Your task to perform on an android device: change text size in settings app Image 0: 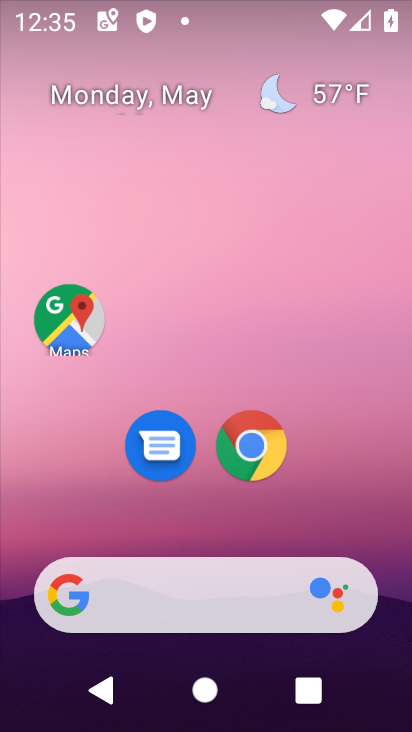
Step 0: drag from (348, 469) to (358, 96)
Your task to perform on an android device: change text size in settings app Image 1: 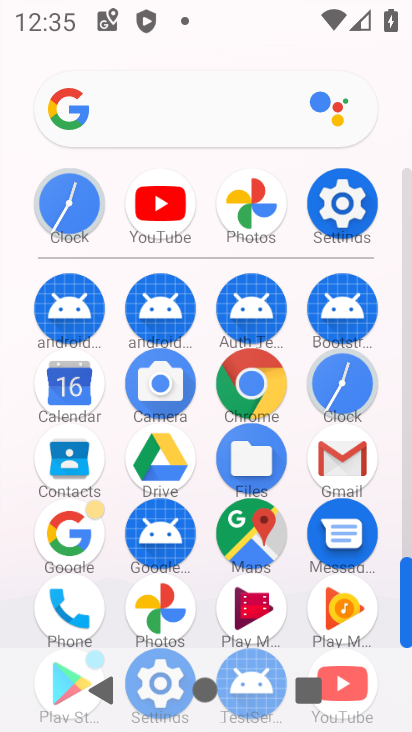
Step 1: click (337, 221)
Your task to perform on an android device: change text size in settings app Image 2: 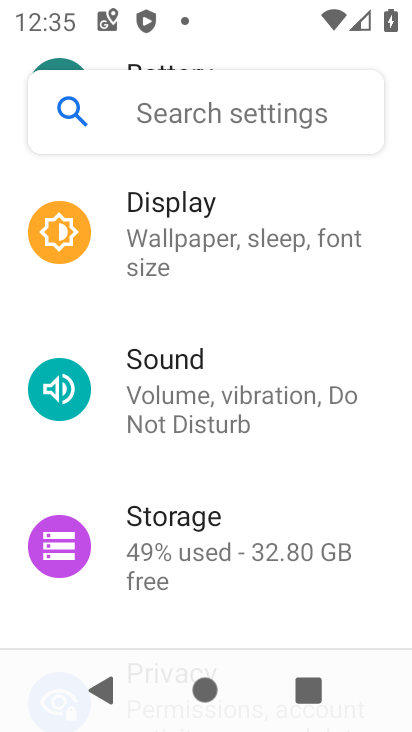
Step 2: drag from (267, 303) to (310, 567)
Your task to perform on an android device: change text size in settings app Image 3: 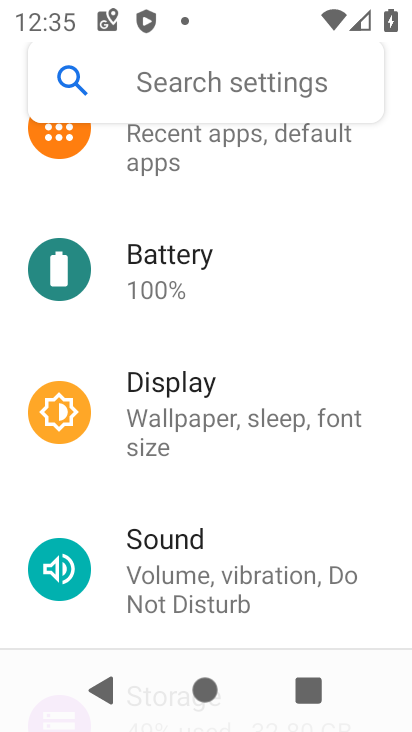
Step 3: click (246, 416)
Your task to perform on an android device: change text size in settings app Image 4: 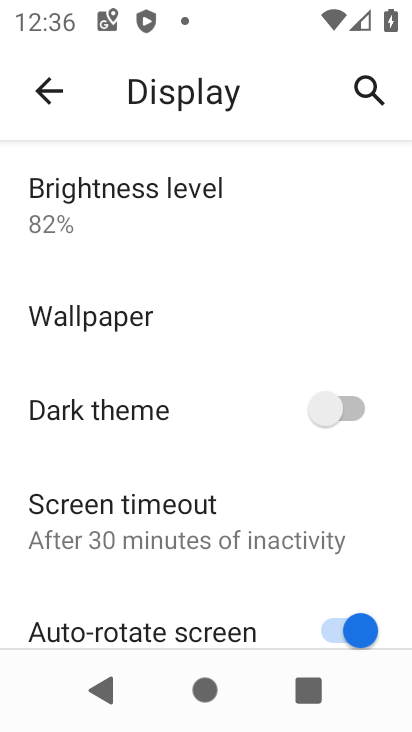
Step 4: drag from (204, 436) to (226, 391)
Your task to perform on an android device: change text size in settings app Image 5: 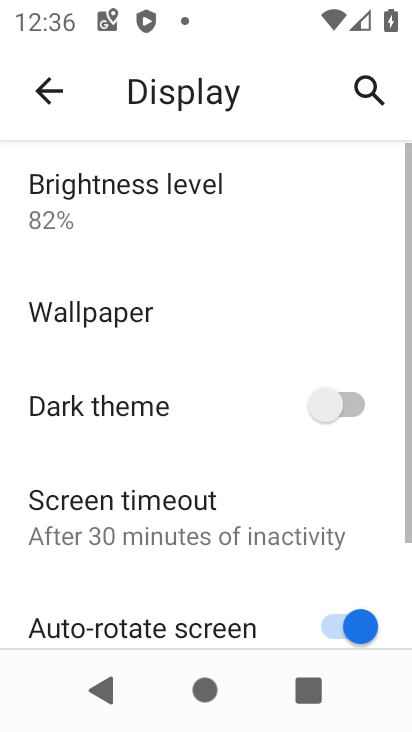
Step 5: click (389, 97)
Your task to perform on an android device: change text size in settings app Image 6: 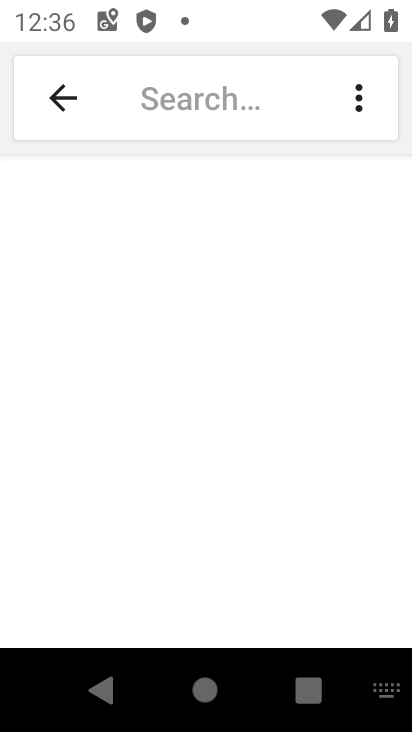
Step 6: press back button
Your task to perform on an android device: change text size in settings app Image 7: 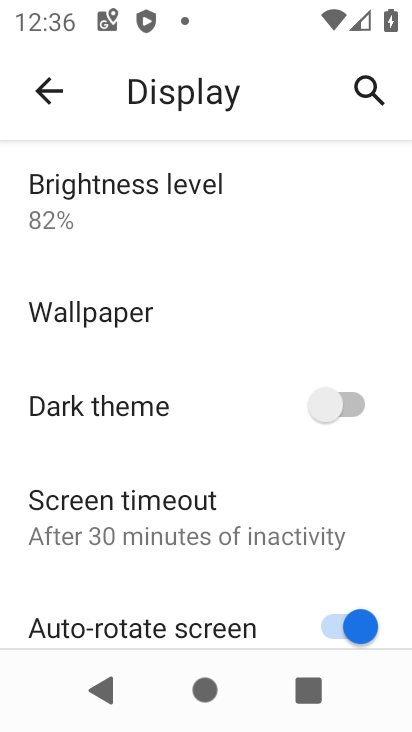
Step 7: drag from (215, 404) to (350, 96)
Your task to perform on an android device: change text size in settings app Image 8: 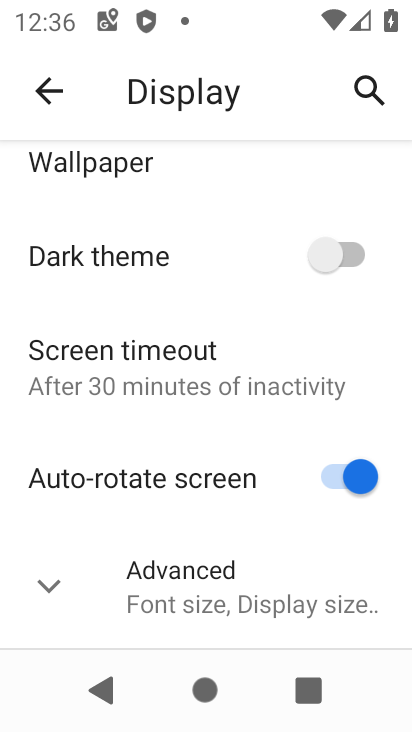
Step 8: click (47, 575)
Your task to perform on an android device: change text size in settings app Image 9: 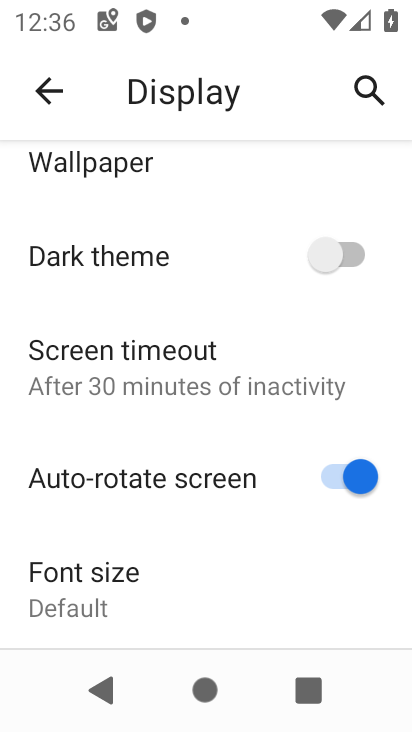
Step 9: drag from (230, 592) to (295, 306)
Your task to perform on an android device: change text size in settings app Image 10: 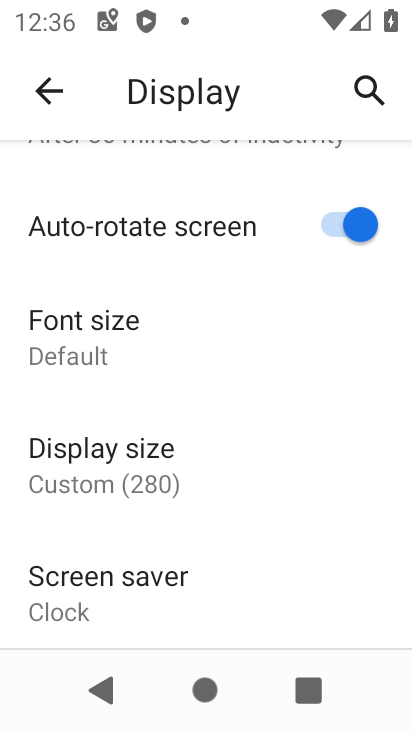
Step 10: drag from (224, 563) to (293, 240)
Your task to perform on an android device: change text size in settings app Image 11: 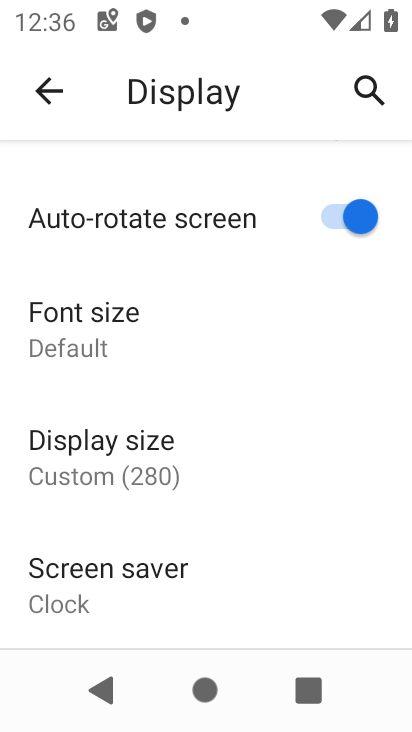
Step 11: click (61, 328)
Your task to perform on an android device: change text size in settings app Image 12: 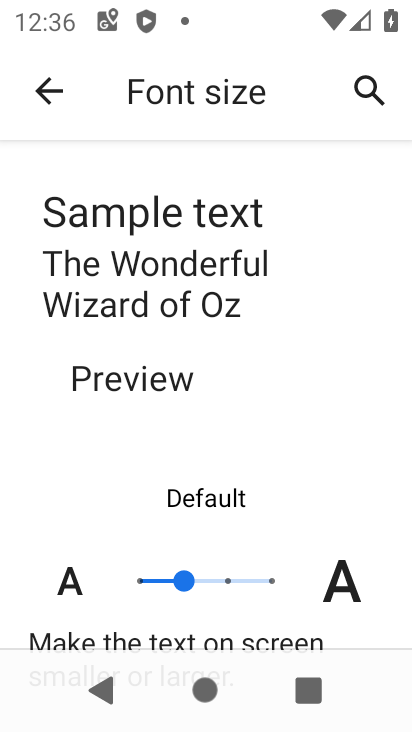
Step 12: click (176, 588)
Your task to perform on an android device: change text size in settings app Image 13: 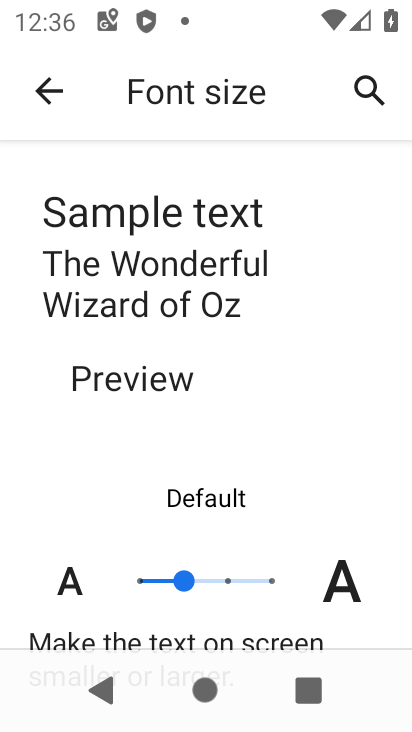
Step 13: task complete